Your task to perform on an android device: What's on my calendar tomorrow? Image 0: 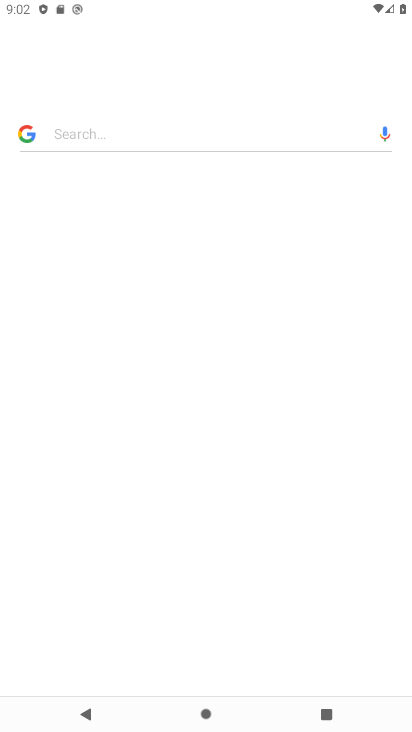
Step 0: drag from (241, 563) to (166, 67)
Your task to perform on an android device: What's on my calendar tomorrow? Image 1: 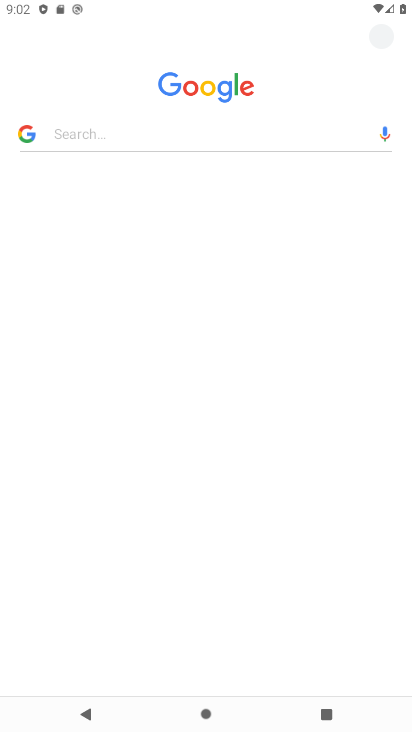
Step 1: press home button
Your task to perform on an android device: What's on my calendar tomorrow? Image 2: 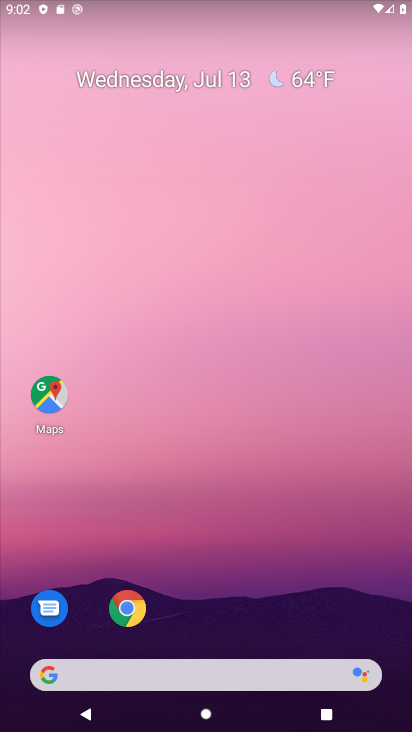
Step 2: click (222, 573)
Your task to perform on an android device: What's on my calendar tomorrow? Image 3: 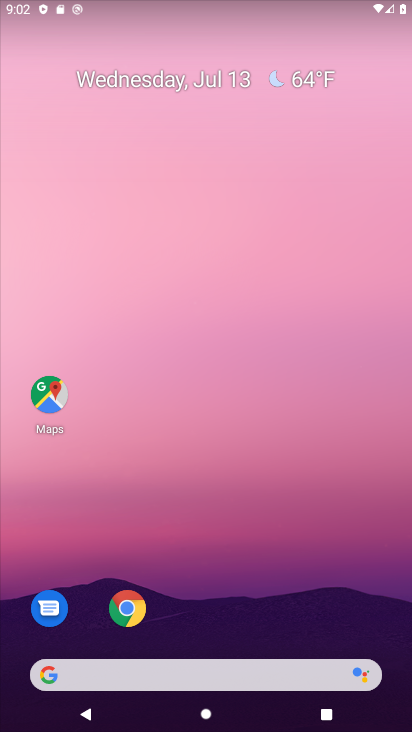
Step 3: drag from (222, 573) to (154, 50)
Your task to perform on an android device: What's on my calendar tomorrow? Image 4: 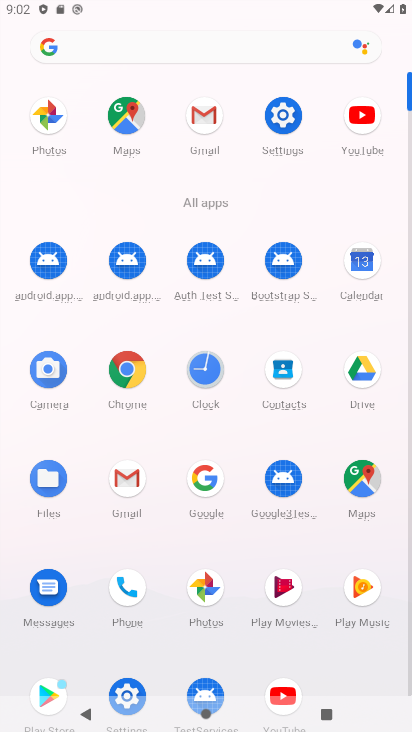
Step 4: click (368, 259)
Your task to perform on an android device: What's on my calendar tomorrow? Image 5: 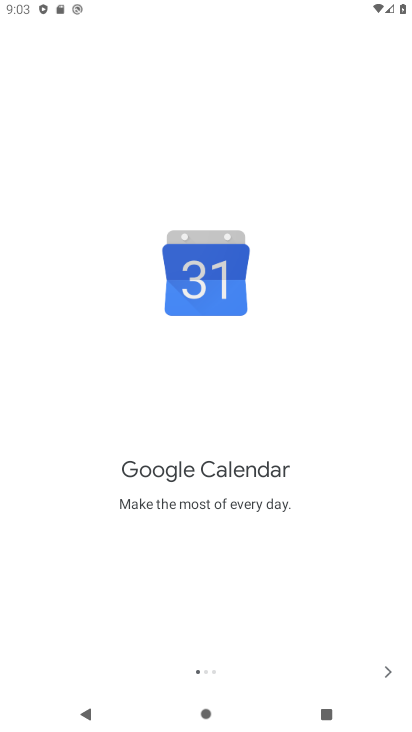
Step 5: click (390, 666)
Your task to perform on an android device: What's on my calendar tomorrow? Image 6: 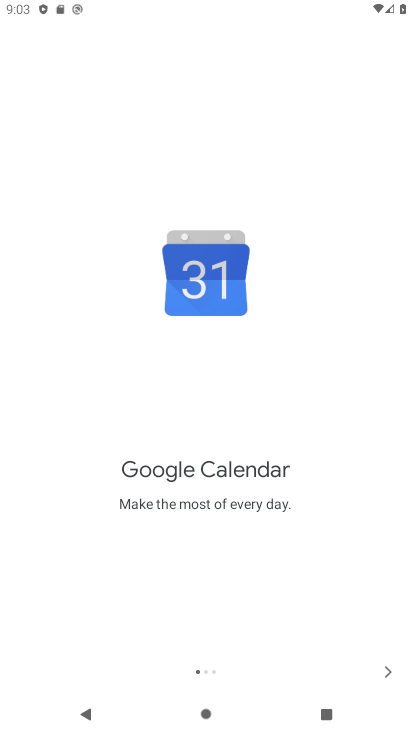
Step 6: click (390, 666)
Your task to perform on an android device: What's on my calendar tomorrow? Image 7: 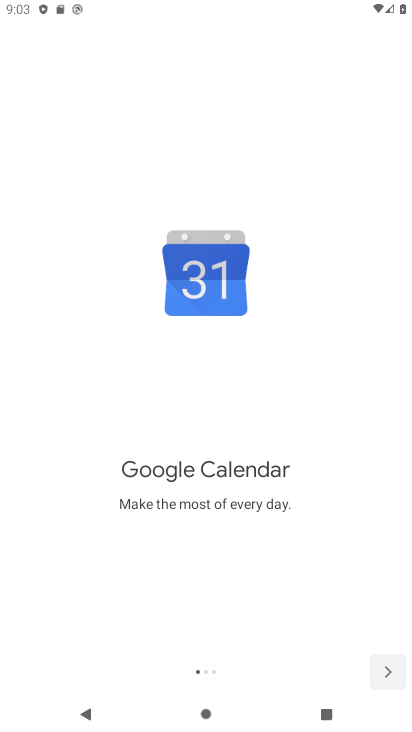
Step 7: click (390, 666)
Your task to perform on an android device: What's on my calendar tomorrow? Image 8: 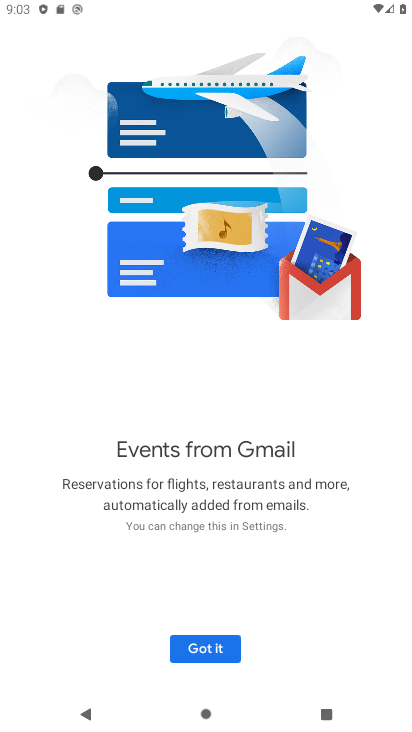
Step 8: click (216, 650)
Your task to perform on an android device: What's on my calendar tomorrow? Image 9: 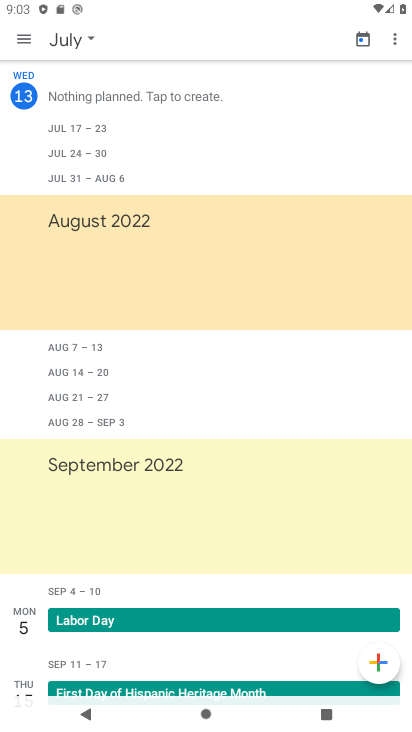
Step 9: click (79, 42)
Your task to perform on an android device: What's on my calendar tomorrow? Image 10: 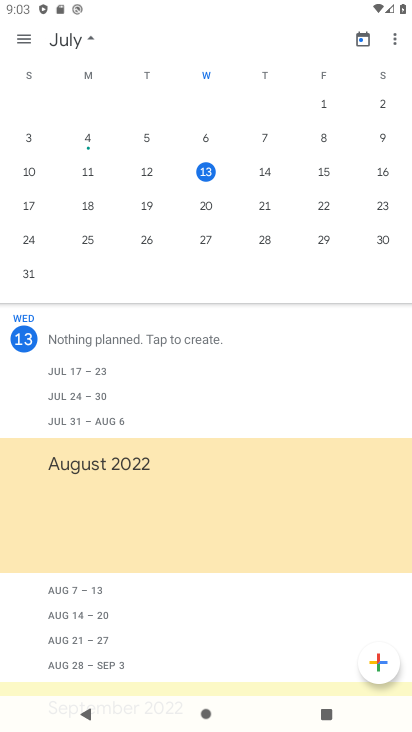
Step 10: click (265, 173)
Your task to perform on an android device: What's on my calendar tomorrow? Image 11: 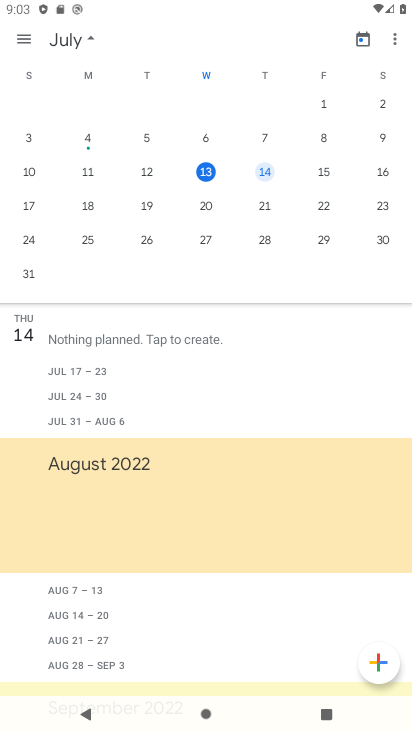
Step 11: click (265, 173)
Your task to perform on an android device: What's on my calendar tomorrow? Image 12: 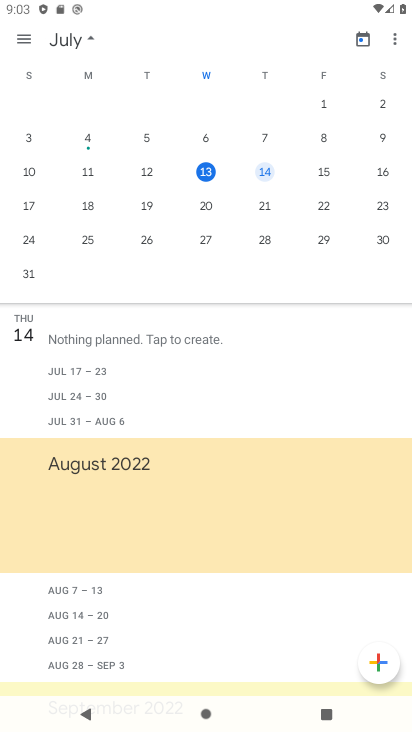
Step 12: task complete